Your task to perform on an android device: Search for Mexican restaurants on Maps Image 0: 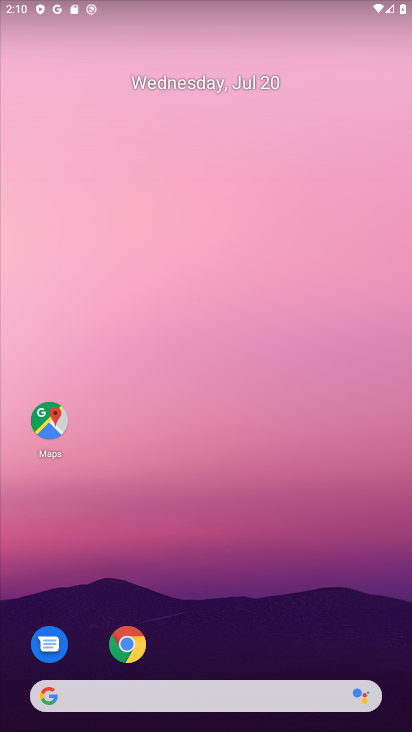
Step 0: click (51, 423)
Your task to perform on an android device: Search for Mexican restaurants on Maps Image 1: 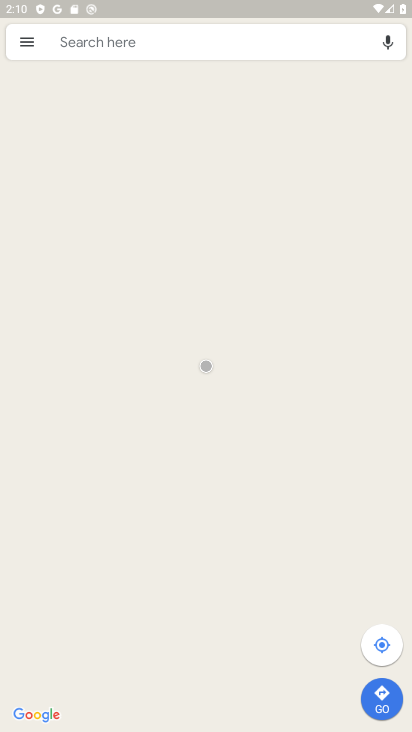
Step 1: click (162, 51)
Your task to perform on an android device: Search for Mexican restaurants on Maps Image 2: 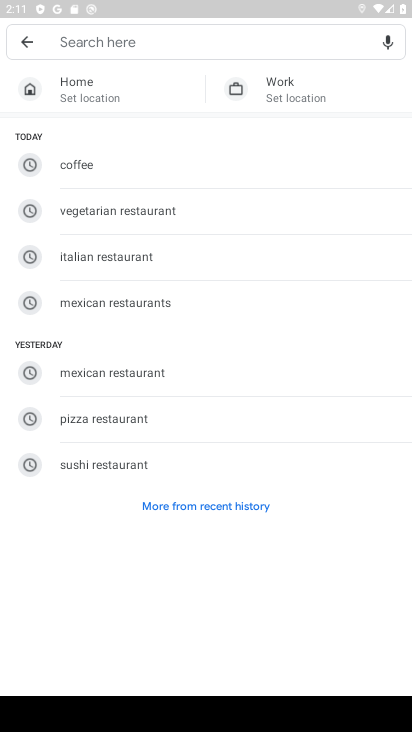
Step 2: type "Mexican restaurants"
Your task to perform on an android device: Search for Mexican restaurants on Maps Image 3: 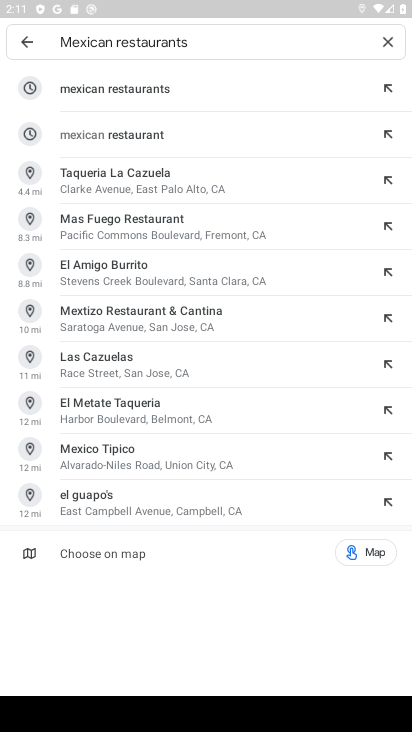
Step 3: click (163, 105)
Your task to perform on an android device: Search for Mexican restaurants on Maps Image 4: 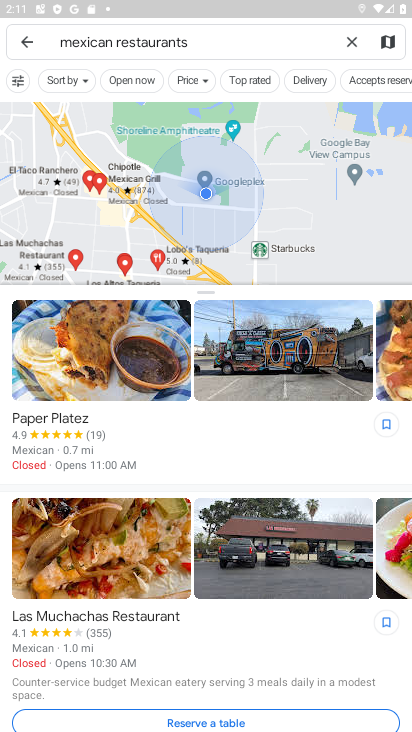
Step 4: task complete